Your task to perform on an android device: Open Google Image 0: 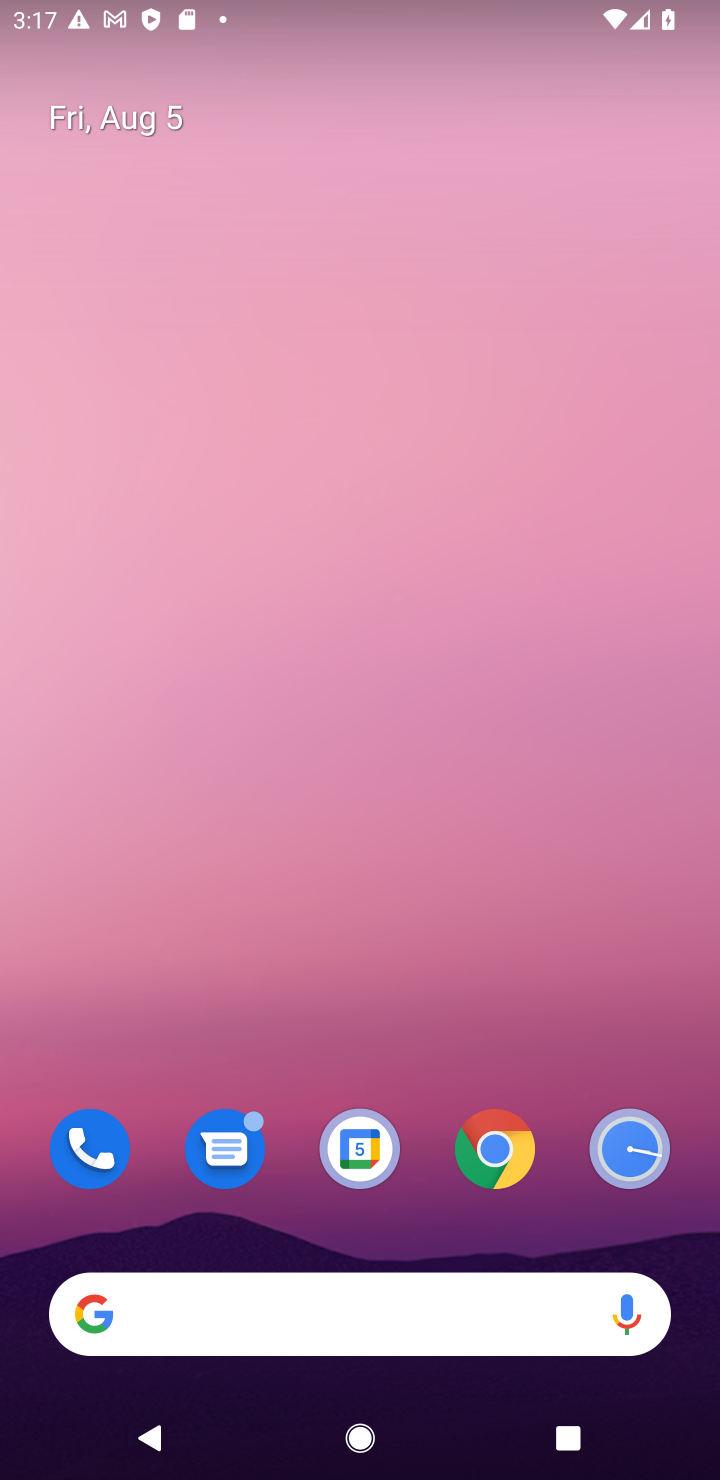
Step 0: drag from (302, 1085) to (410, 1)
Your task to perform on an android device: Open Google Image 1: 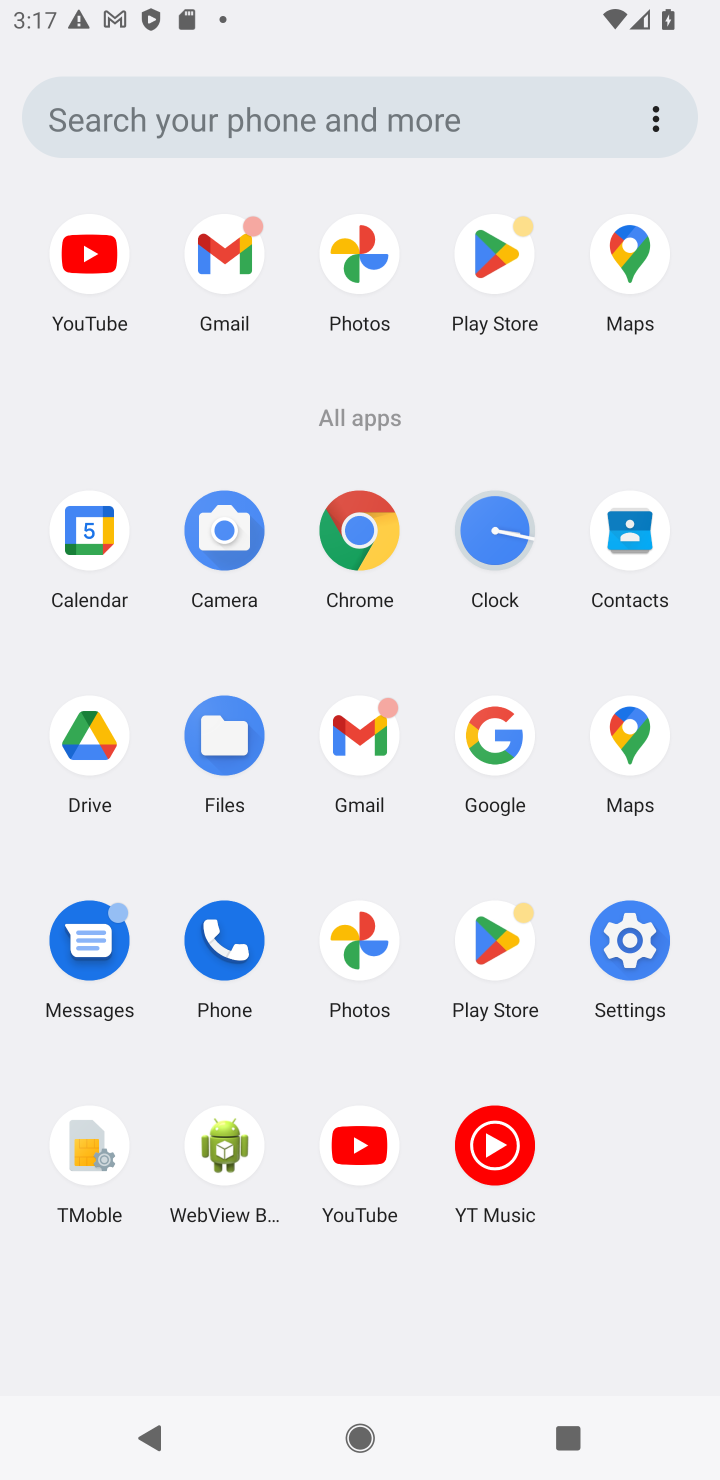
Step 1: click (492, 736)
Your task to perform on an android device: Open Google Image 2: 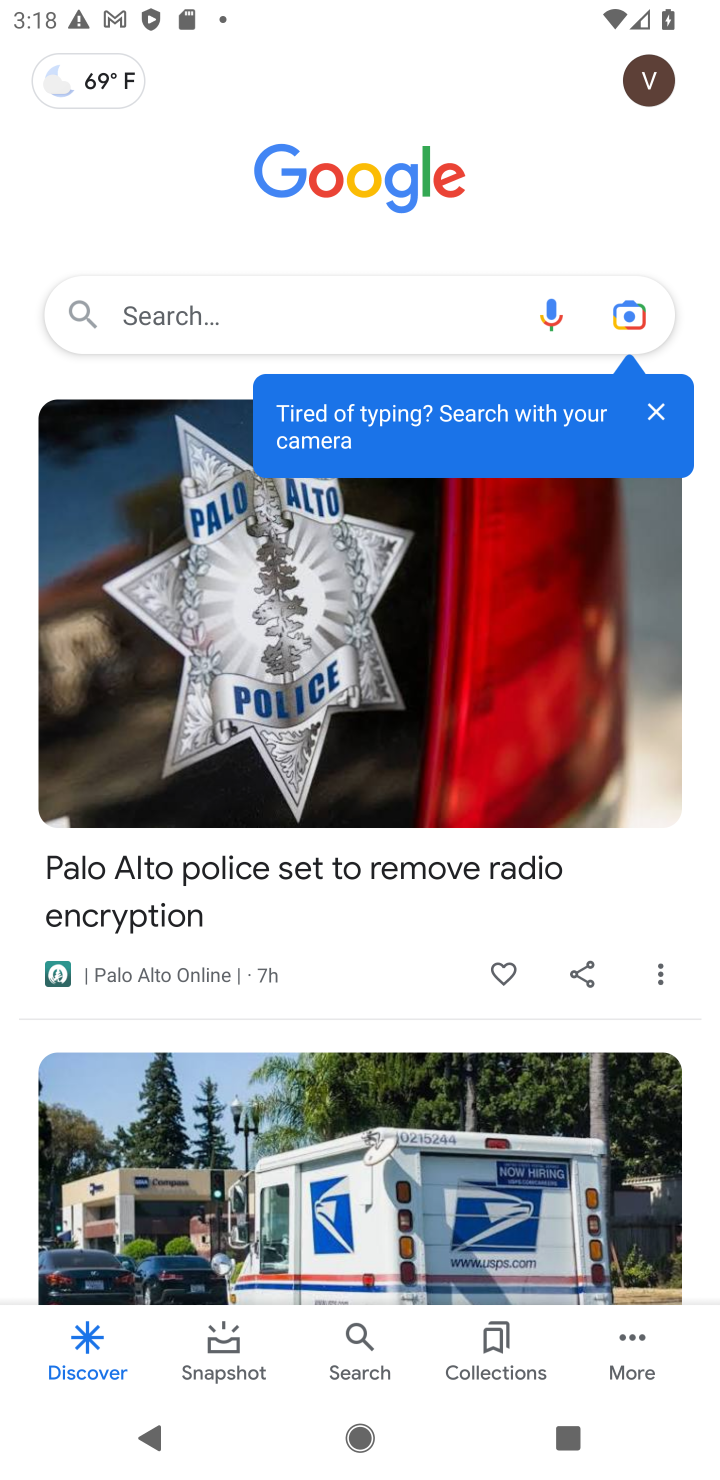
Step 2: task complete